Your task to perform on an android device: turn on the 12-hour format for clock Image 0: 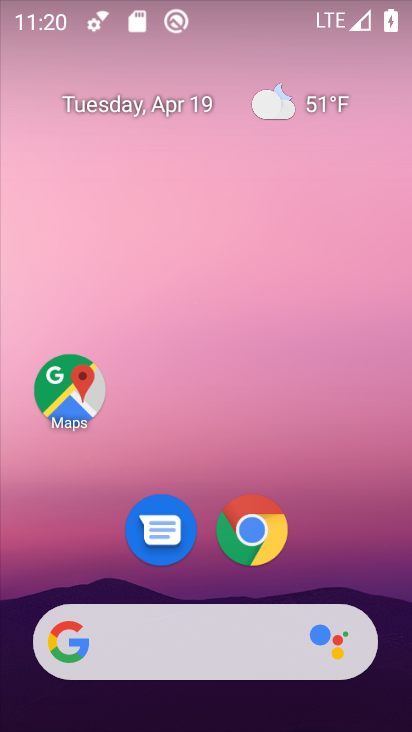
Step 0: drag from (211, 636) to (292, 124)
Your task to perform on an android device: turn on the 12-hour format for clock Image 1: 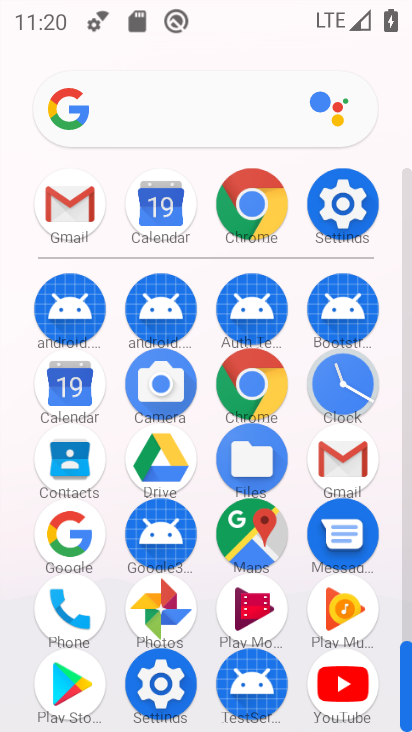
Step 1: click (339, 392)
Your task to perform on an android device: turn on the 12-hour format for clock Image 2: 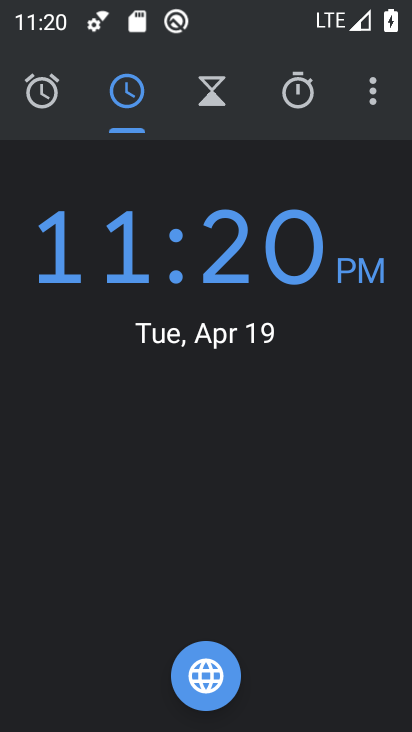
Step 2: click (375, 102)
Your task to perform on an android device: turn on the 12-hour format for clock Image 3: 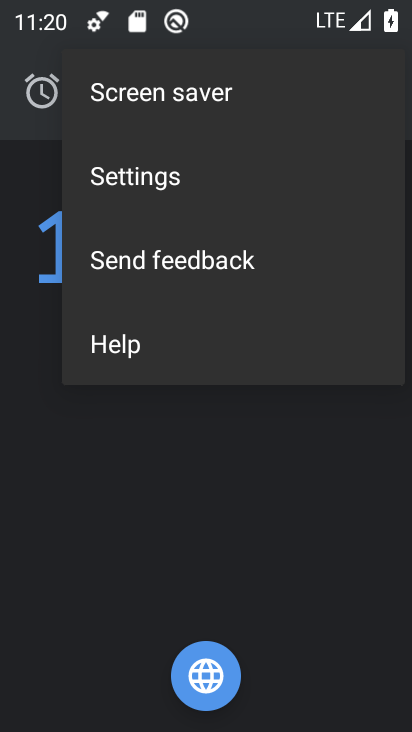
Step 3: click (124, 167)
Your task to perform on an android device: turn on the 12-hour format for clock Image 4: 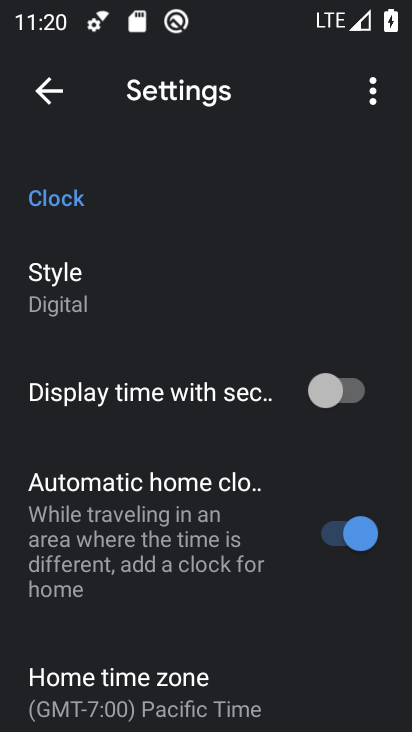
Step 4: drag from (188, 630) to (361, 132)
Your task to perform on an android device: turn on the 12-hour format for clock Image 5: 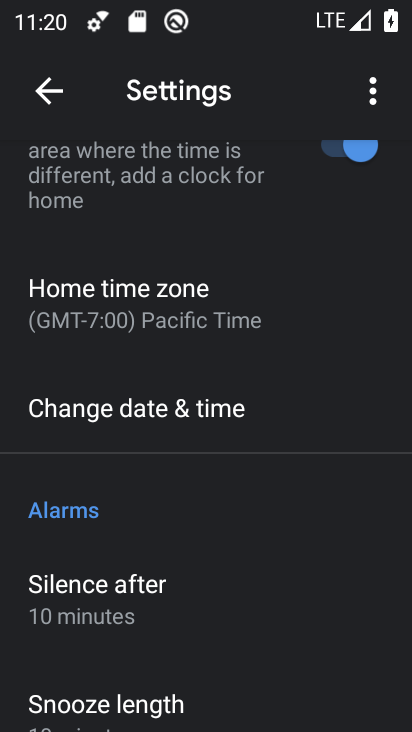
Step 5: click (157, 410)
Your task to perform on an android device: turn on the 12-hour format for clock Image 6: 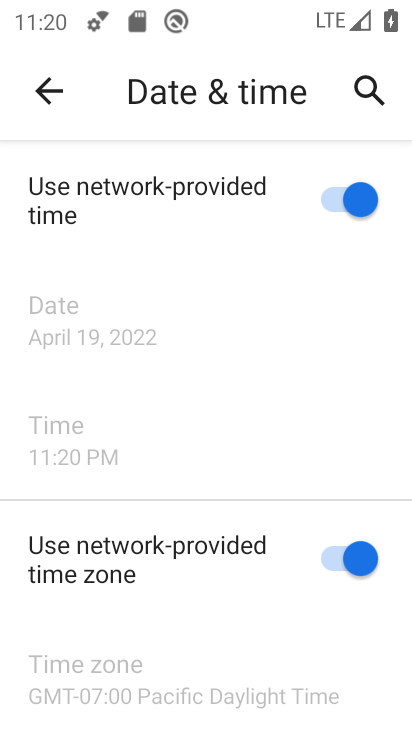
Step 6: task complete